Your task to perform on an android device: Clear the shopping cart on target.com. Search for "logitech g pro" on target.com, select the first entry, add it to the cart, then select checkout. Image 0: 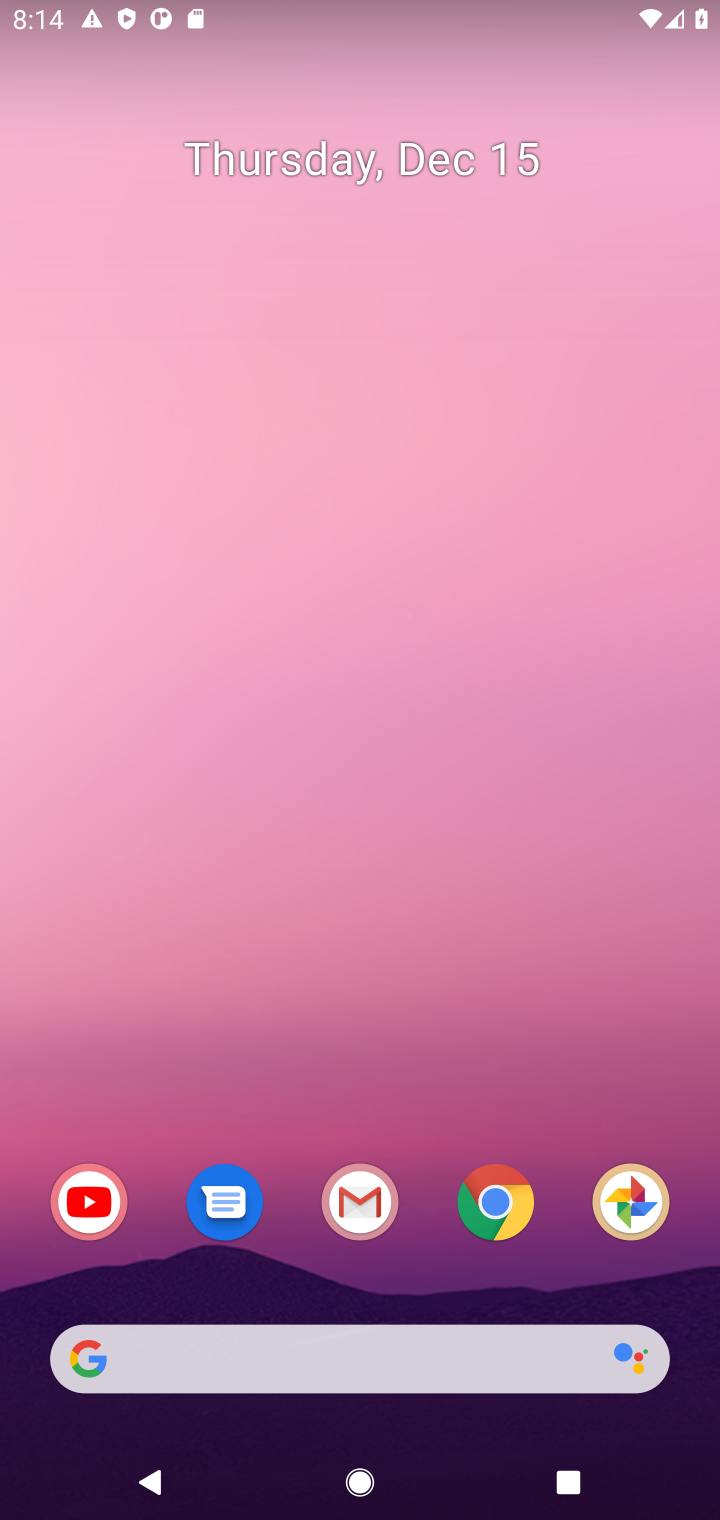
Step 0: click (481, 1204)
Your task to perform on an android device: Clear the shopping cart on target.com. Search for "logitech g pro" on target.com, select the first entry, add it to the cart, then select checkout. Image 1: 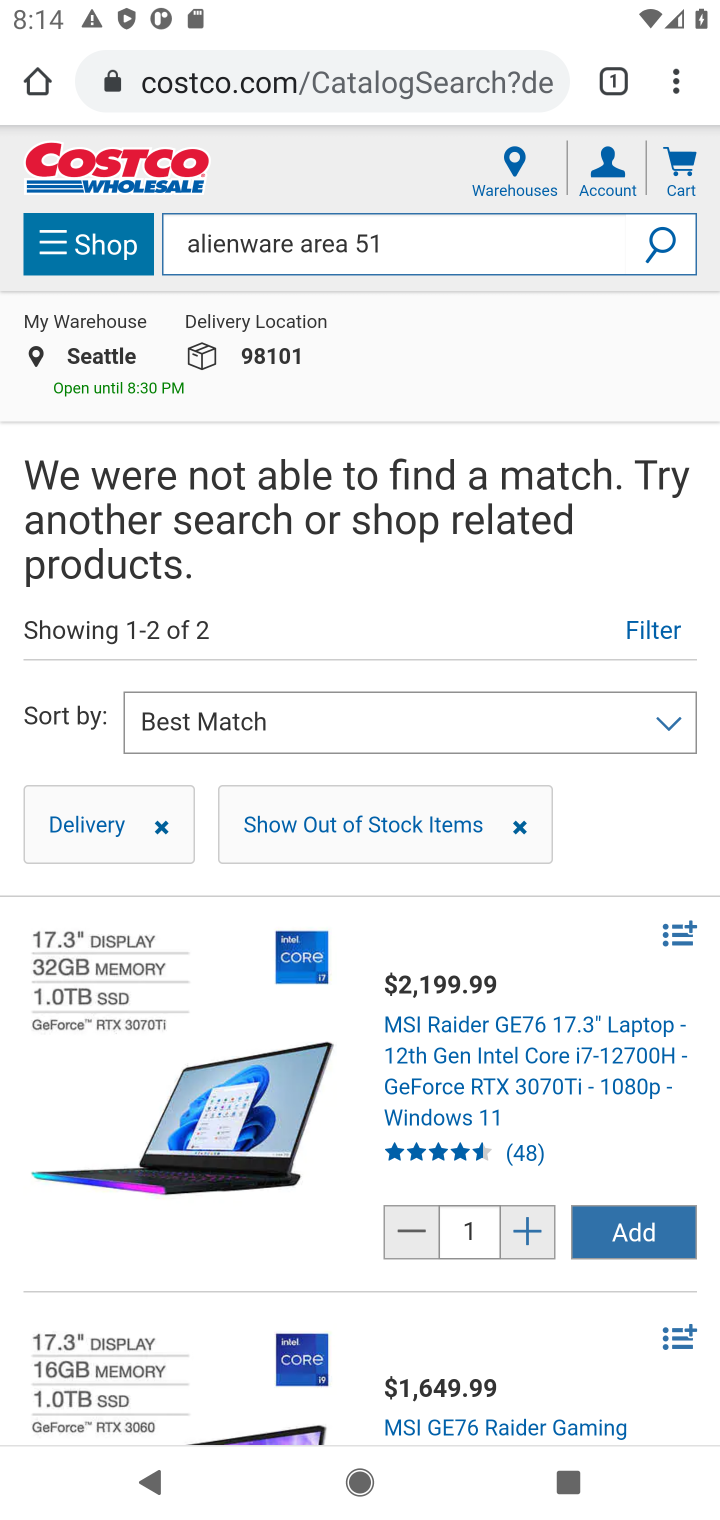
Step 1: click (232, 90)
Your task to perform on an android device: Clear the shopping cart on target.com. Search for "logitech g pro" on target.com, select the first entry, add it to the cart, then select checkout. Image 2: 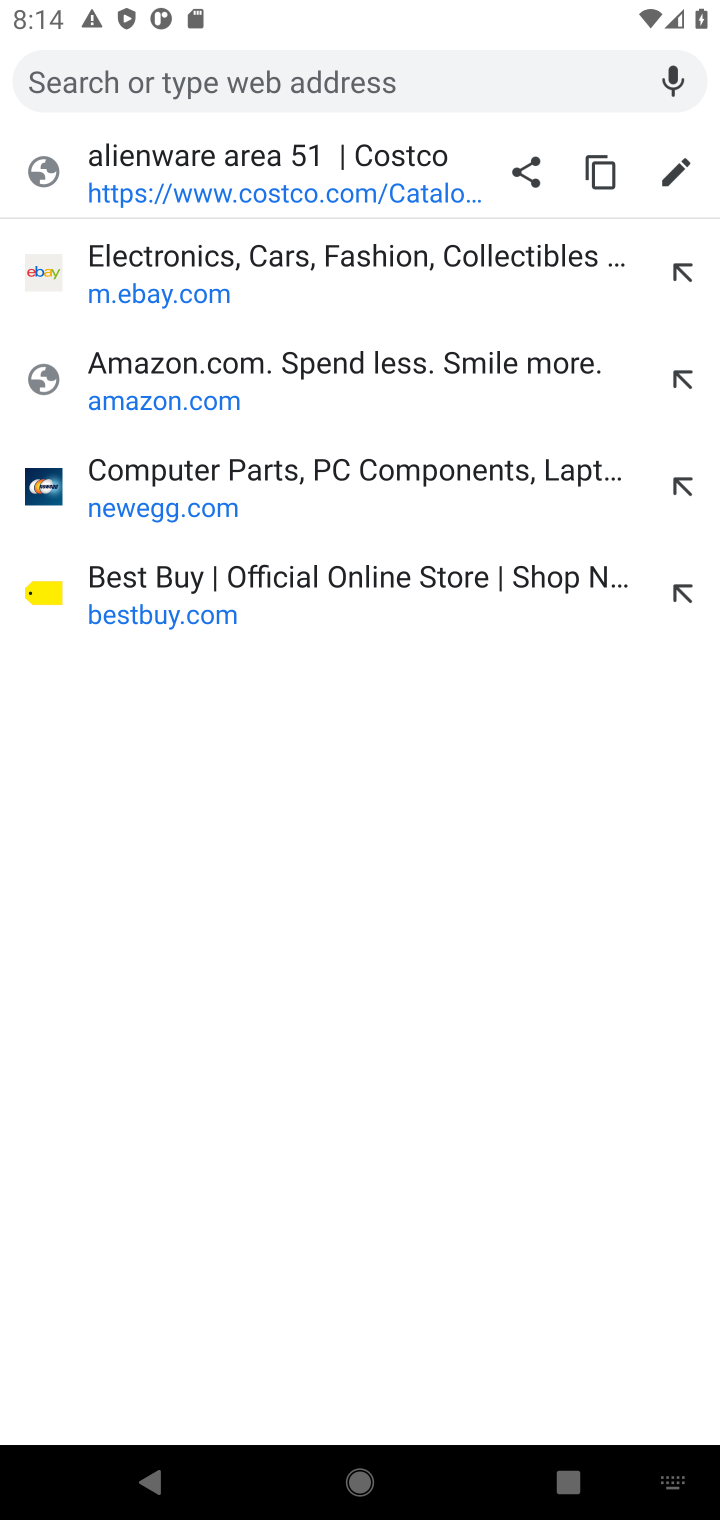
Step 2: type "target.com"
Your task to perform on an android device: Clear the shopping cart on target.com. Search for "logitech g pro" on target.com, select the first entry, add it to the cart, then select checkout. Image 3: 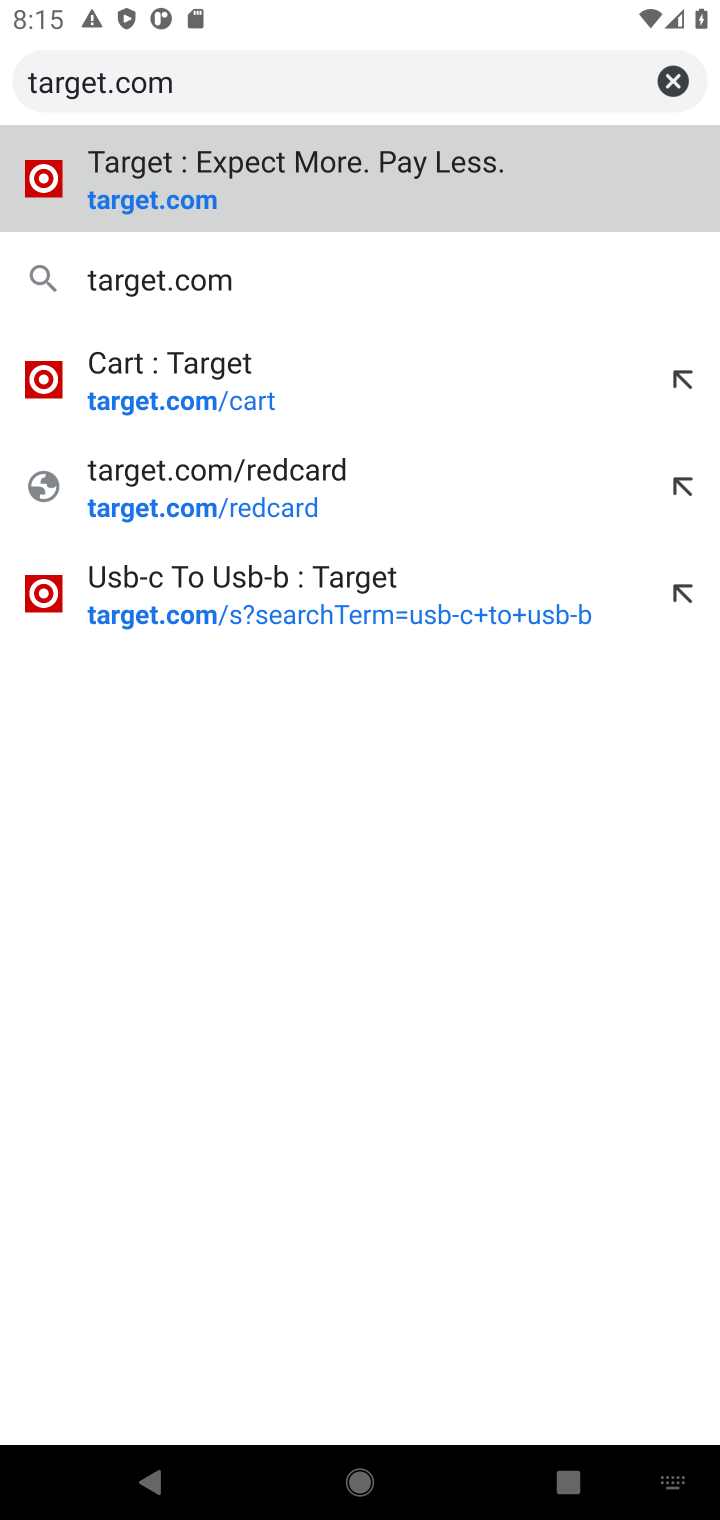
Step 3: click (137, 211)
Your task to perform on an android device: Clear the shopping cart on target.com. Search for "logitech g pro" on target.com, select the first entry, add it to the cart, then select checkout. Image 4: 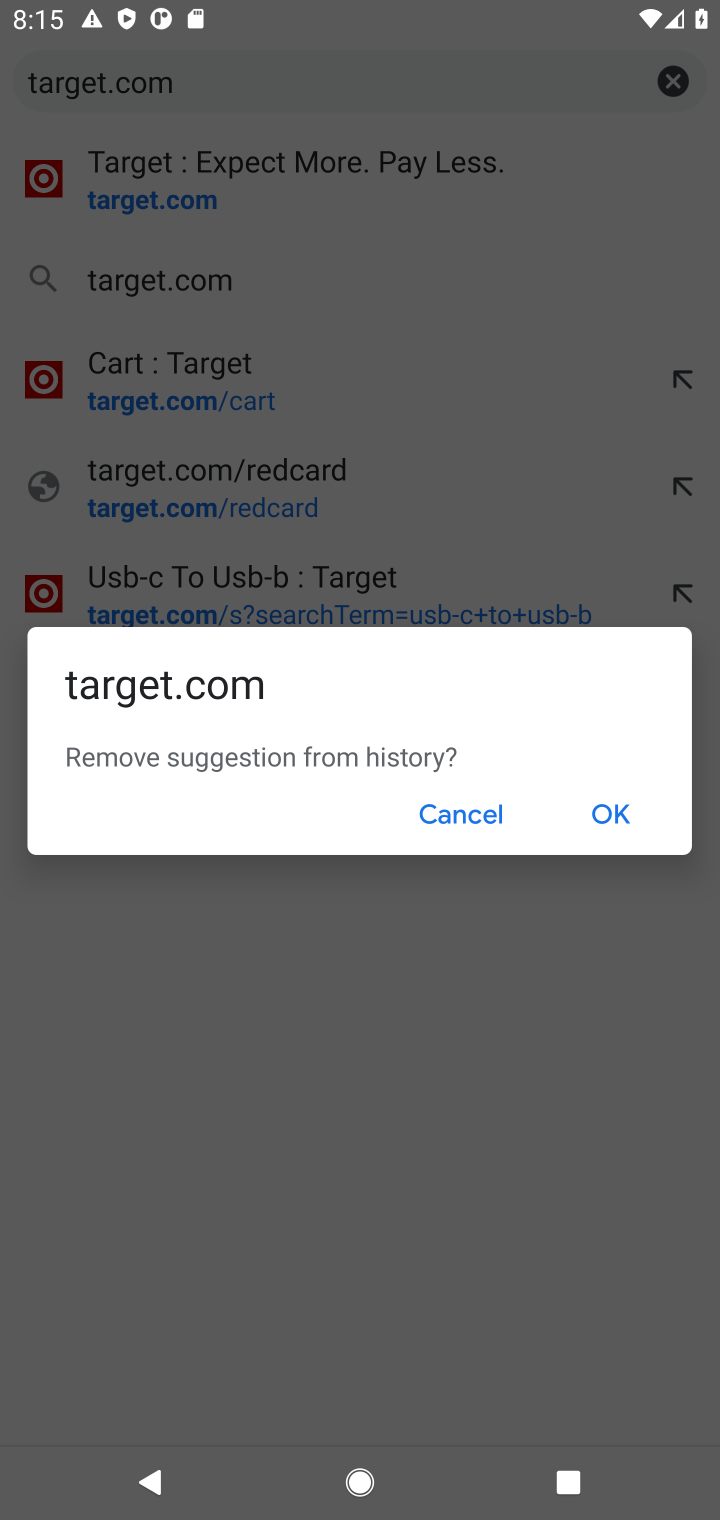
Step 4: click (422, 809)
Your task to perform on an android device: Clear the shopping cart on target.com. Search for "logitech g pro" on target.com, select the first entry, add it to the cart, then select checkout. Image 5: 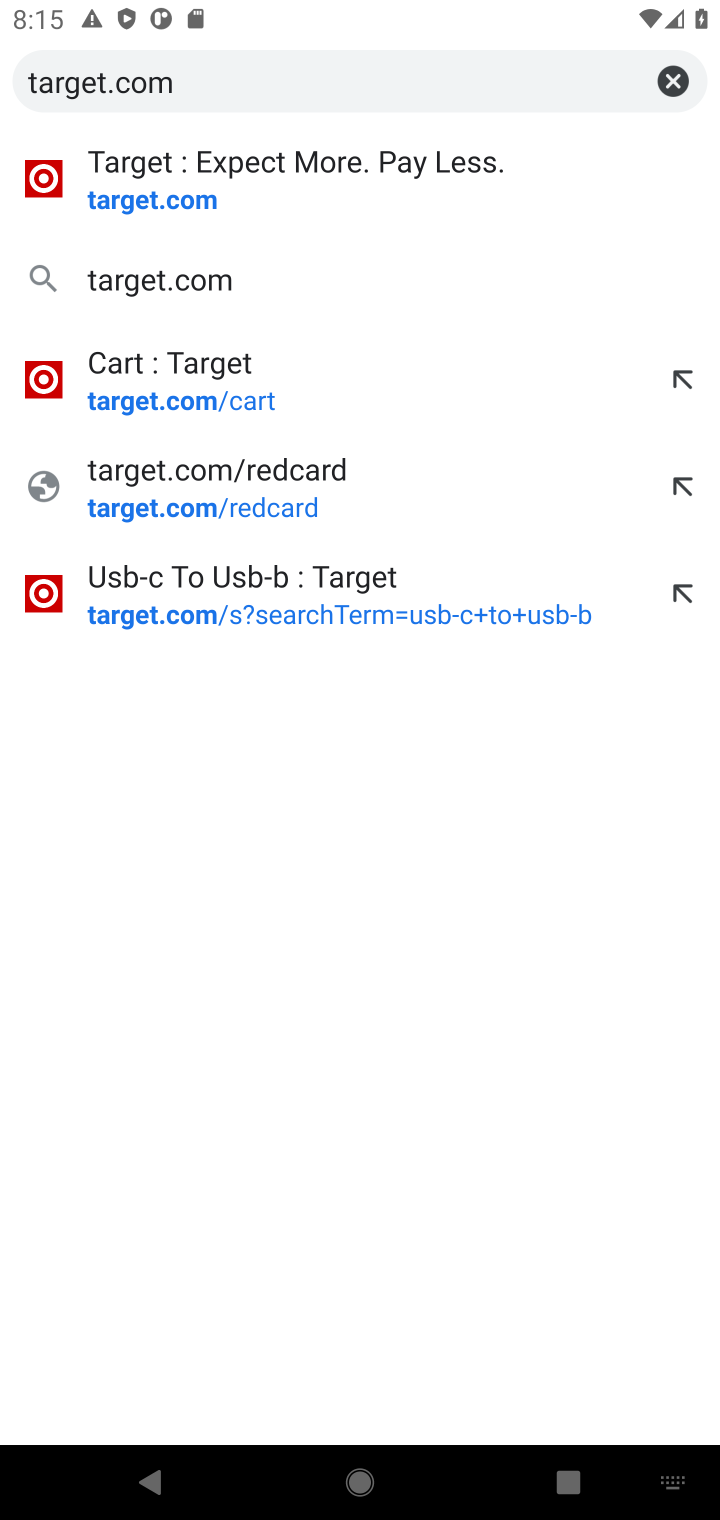
Step 5: click (164, 215)
Your task to perform on an android device: Clear the shopping cart on target.com. Search for "logitech g pro" on target.com, select the first entry, add it to the cart, then select checkout. Image 6: 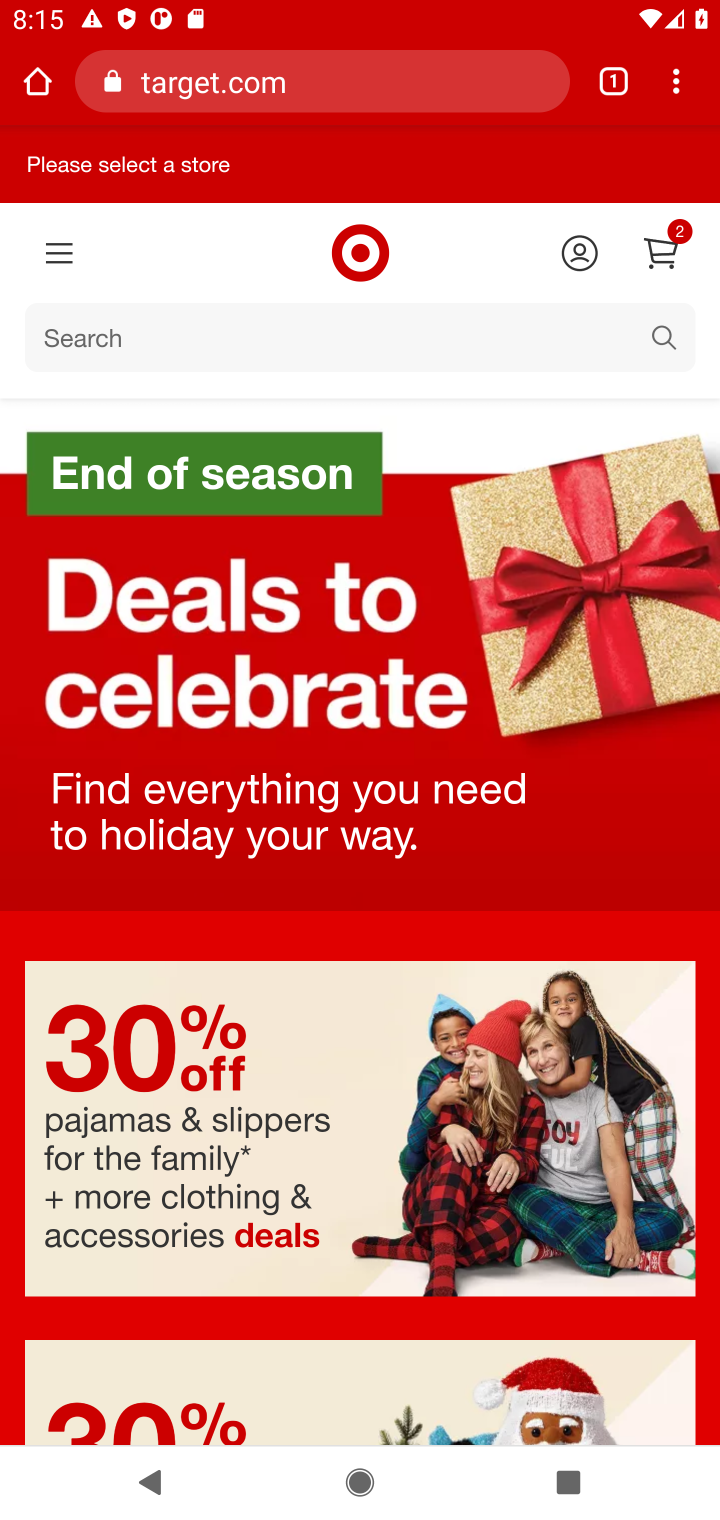
Step 6: click (670, 262)
Your task to perform on an android device: Clear the shopping cart on target.com. Search for "logitech g pro" on target.com, select the first entry, add it to the cart, then select checkout. Image 7: 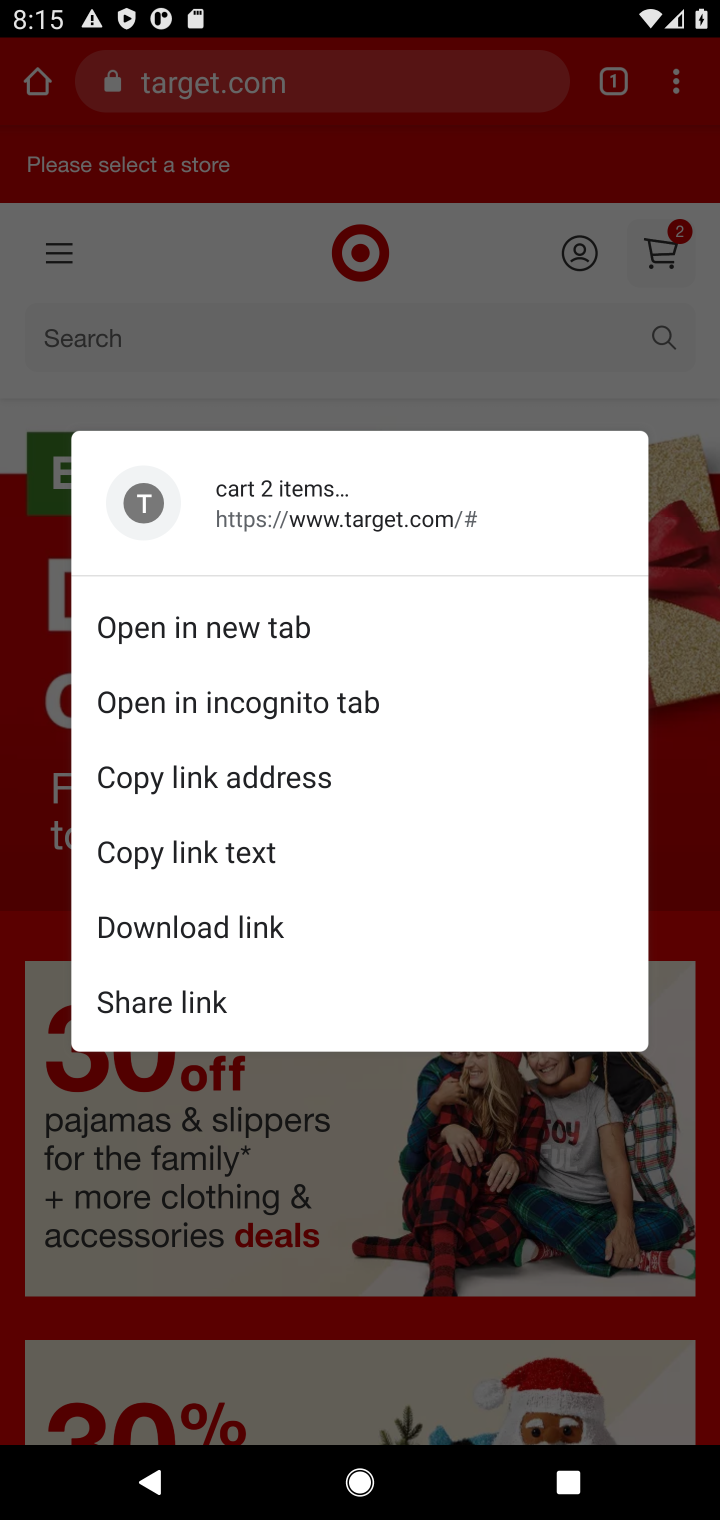
Step 7: click (645, 269)
Your task to perform on an android device: Clear the shopping cart on target.com. Search for "logitech g pro" on target.com, select the first entry, add it to the cart, then select checkout. Image 8: 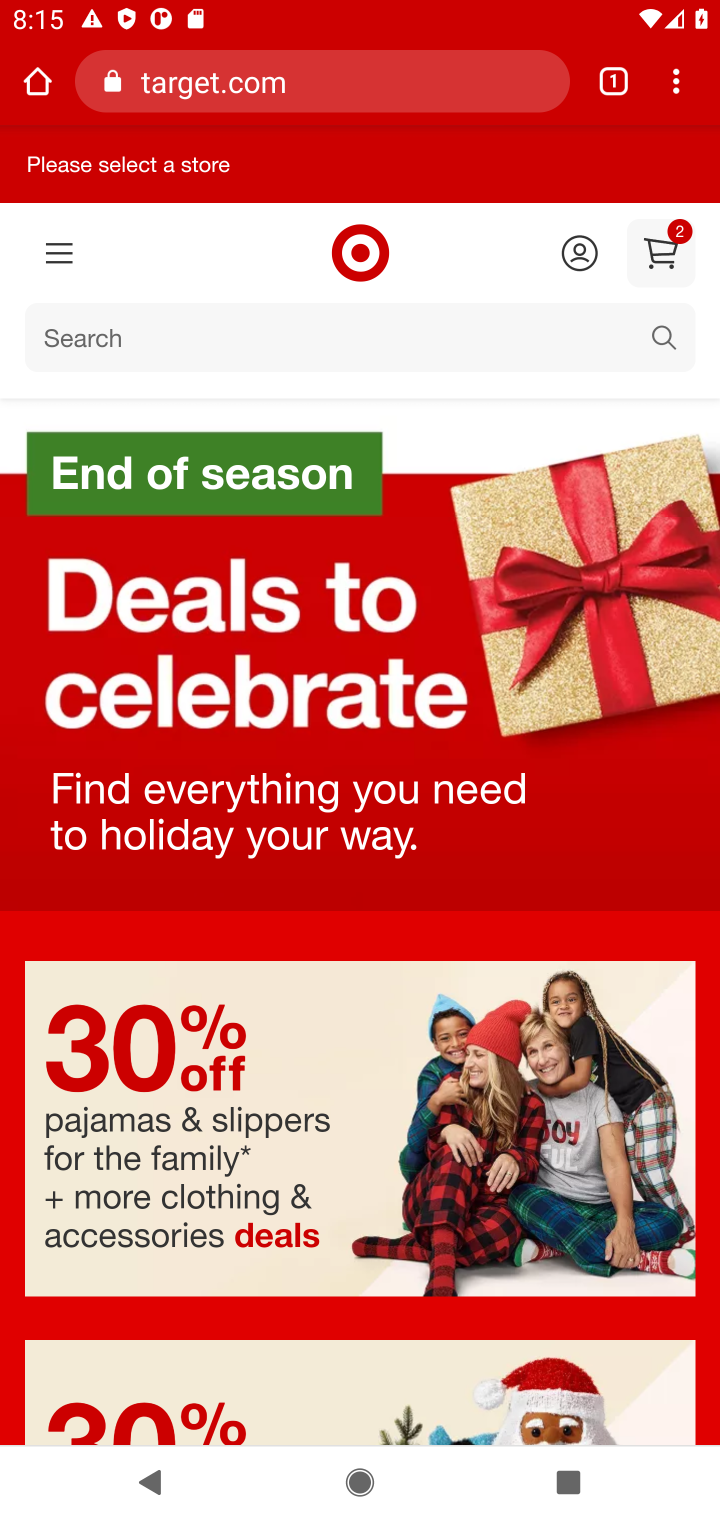
Step 8: click (674, 258)
Your task to perform on an android device: Clear the shopping cart on target.com. Search for "logitech g pro" on target.com, select the first entry, add it to the cart, then select checkout. Image 9: 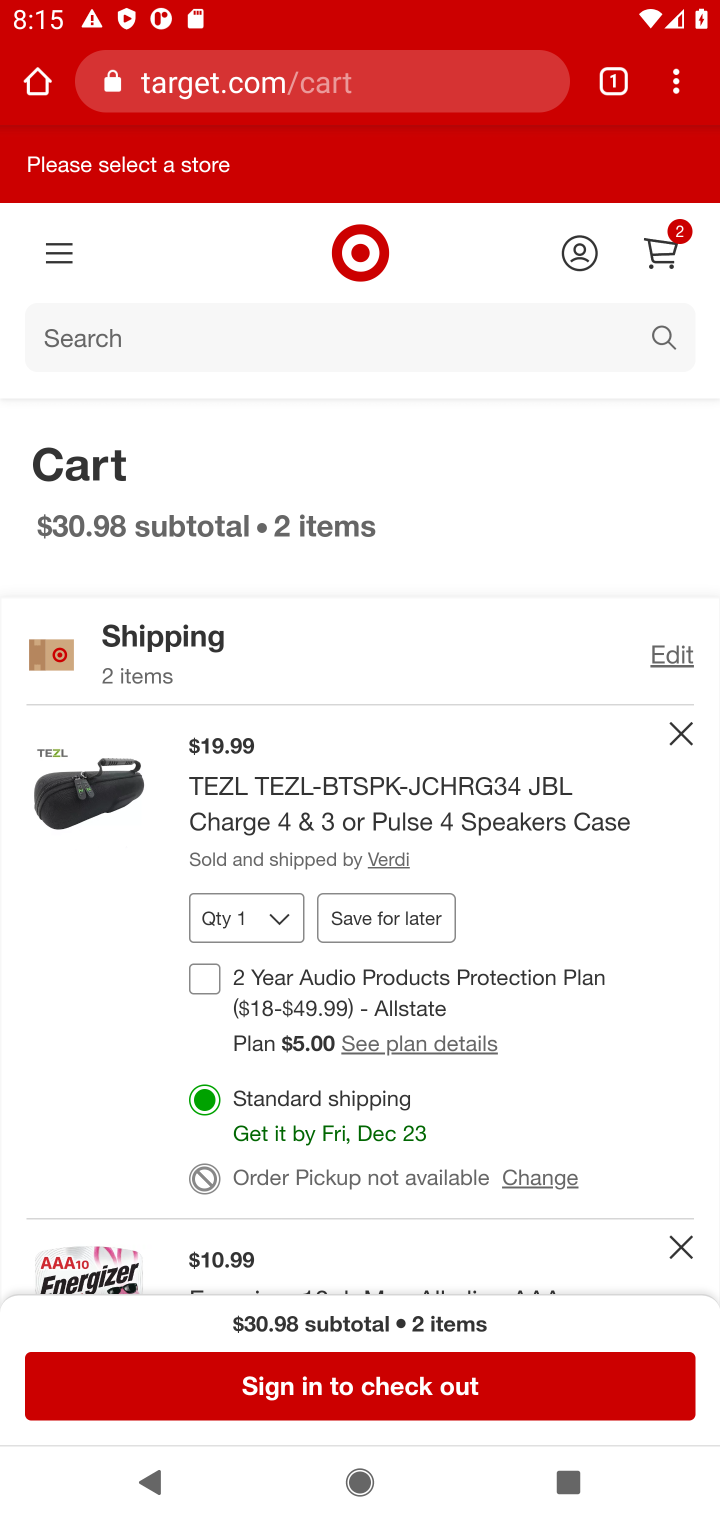
Step 9: click (674, 731)
Your task to perform on an android device: Clear the shopping cart on target.com. Search for "logitech g pro" on target.com, select the first entry, add it to the cart, then select checkout. Image 10: 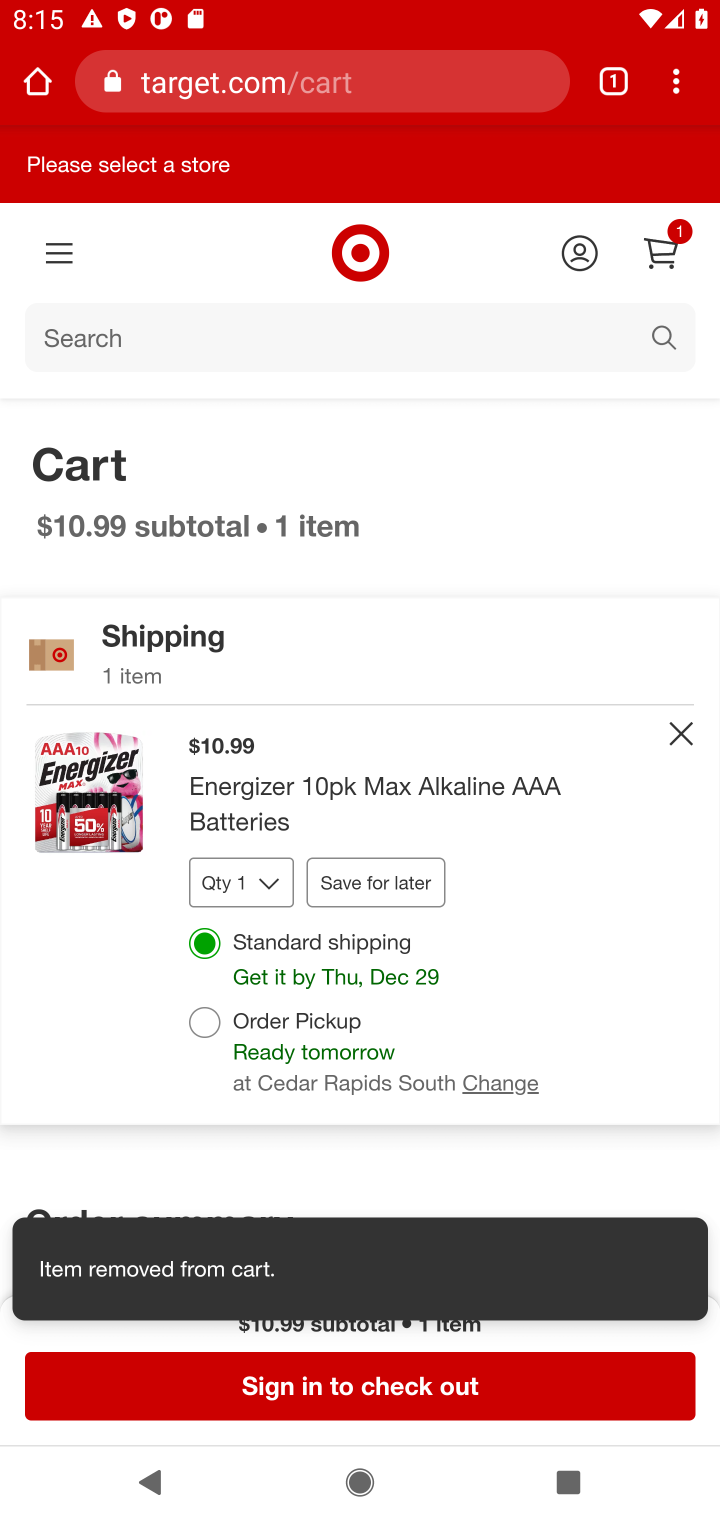
Step 10: click (674, 731)
Your task to perform on an android device: Clear the shopping cart on target.com. Search for "logitech g pro" on target.com, select the first entry, add it to the cart, then select checkout. Image 11: 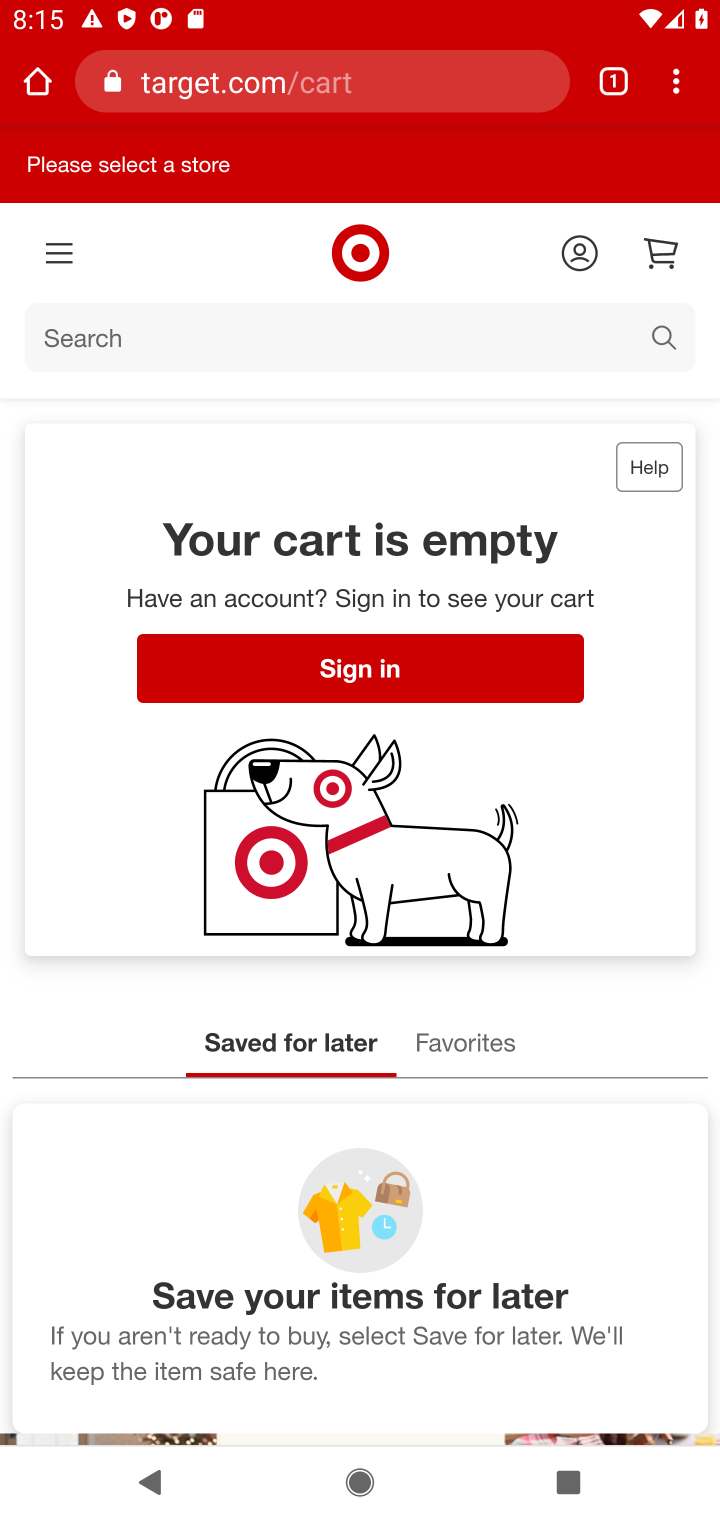
Step 11: click (74, 348)
Your task to perform on an android device: Clear the shopping cart on target.com. Search for "logitech g pro" on target.com, select the first entry, add it to the cart, then select checkout. Image 12: 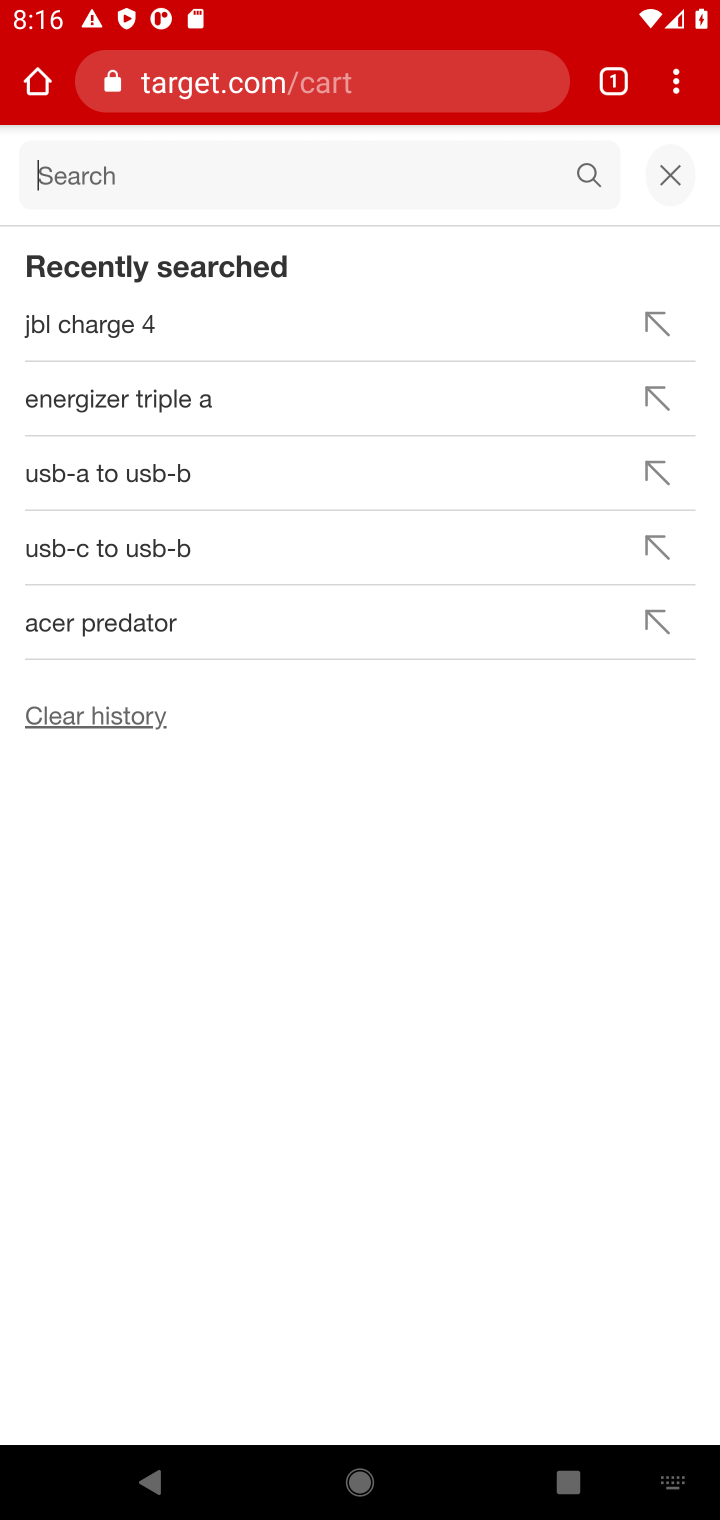
Step 12: type "logitech g pro"
Your task to perform on an android device: Clear the shopping cart on target.com. Search for "logitech g pro" on target.com, select the first entry, add it to the cart, then select checkout. Image 13: 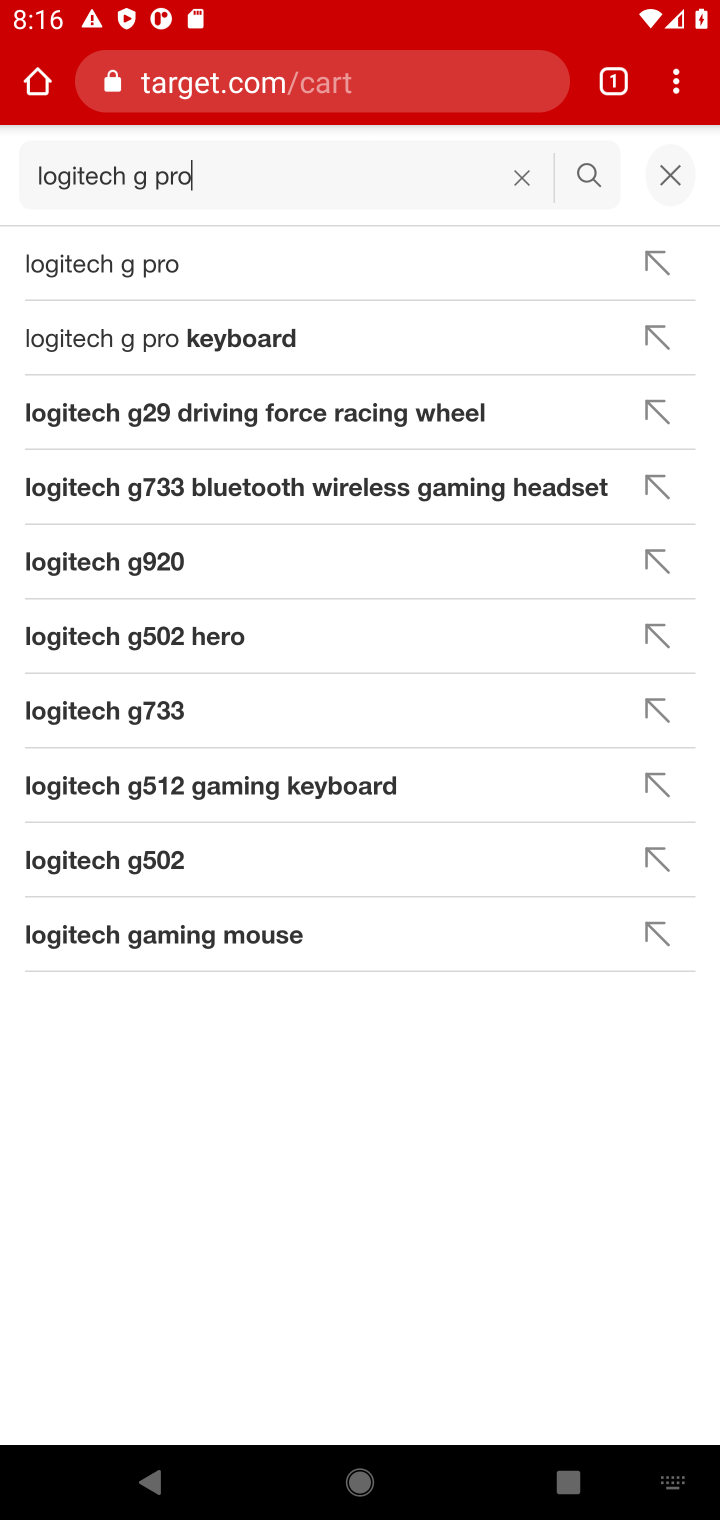
Step 13: click (88, 268)
Your task to perform on an android device: Clear the shopping cart on target.com. Search for "logitech g pro" on target.com, select the first entry, add it to the cart, then select checkout. Image 14: 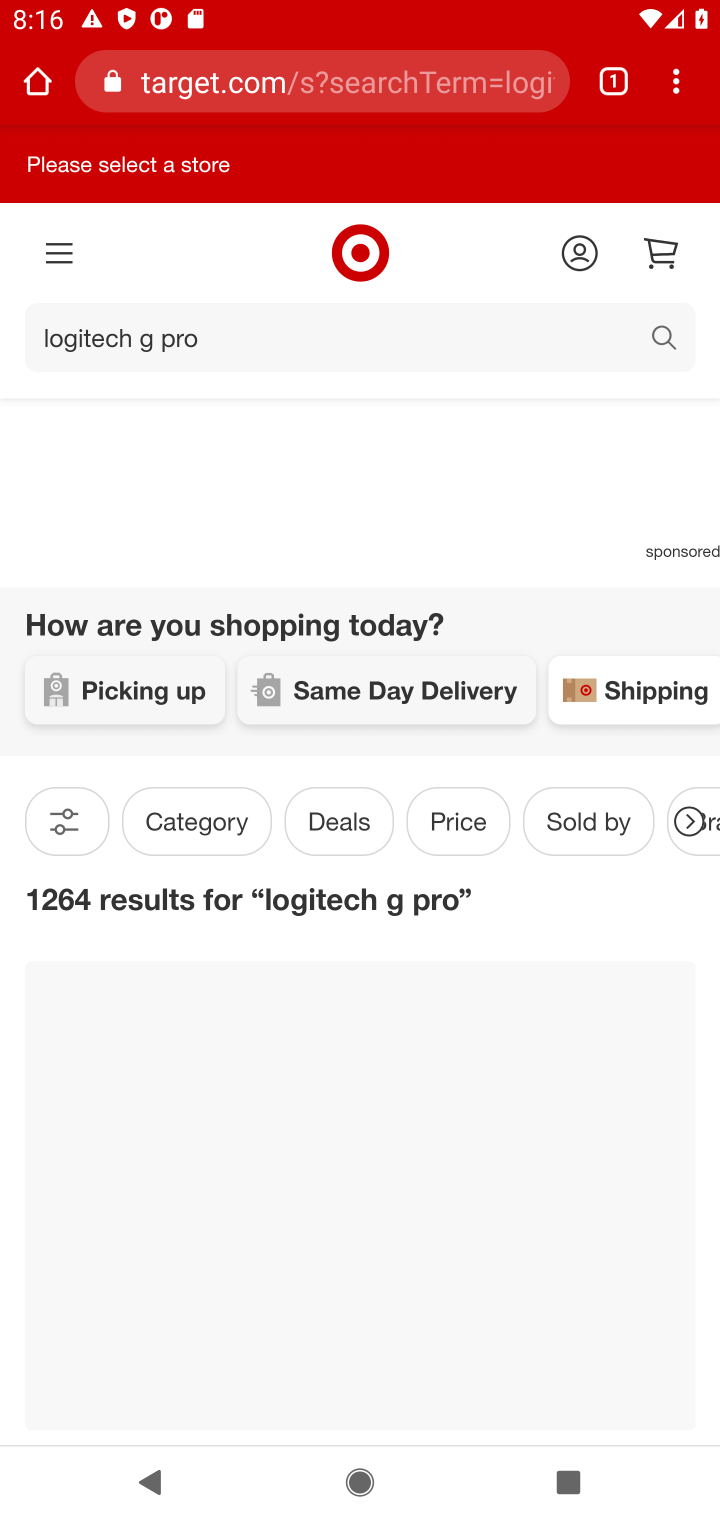
Step 14: task complete